Your task to perform on an android device: open app "Upside-Cash back on gas & food" (install if not already installed), go to login, and select forgot password Image 0: 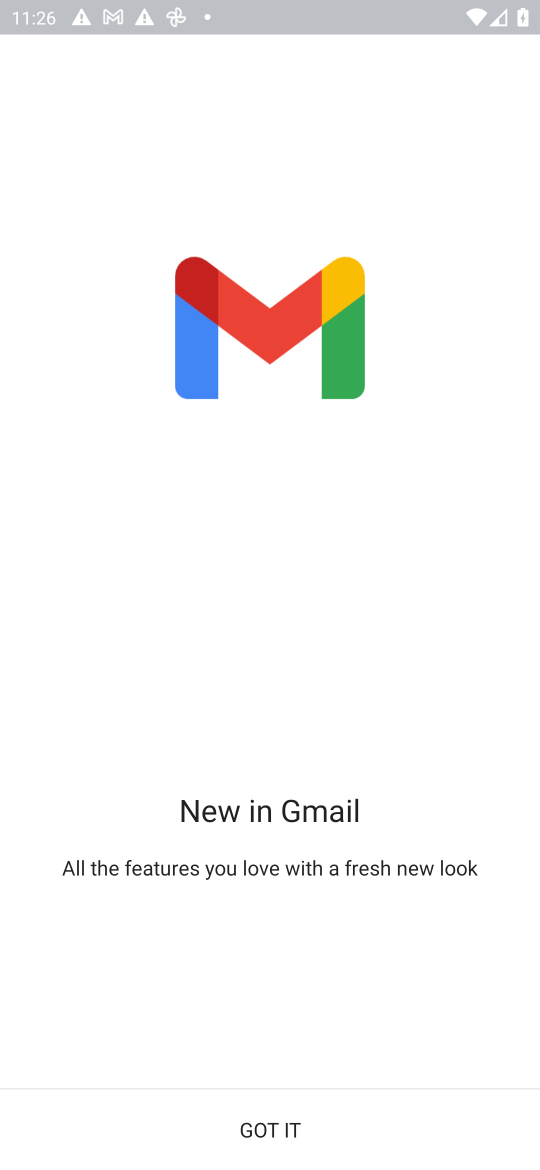
Step 0: press home button
Your task to perform on an android device: open app "Upside-Cash back on gas & food" (install if not already installed), go to login, and select forgot password Image 1: 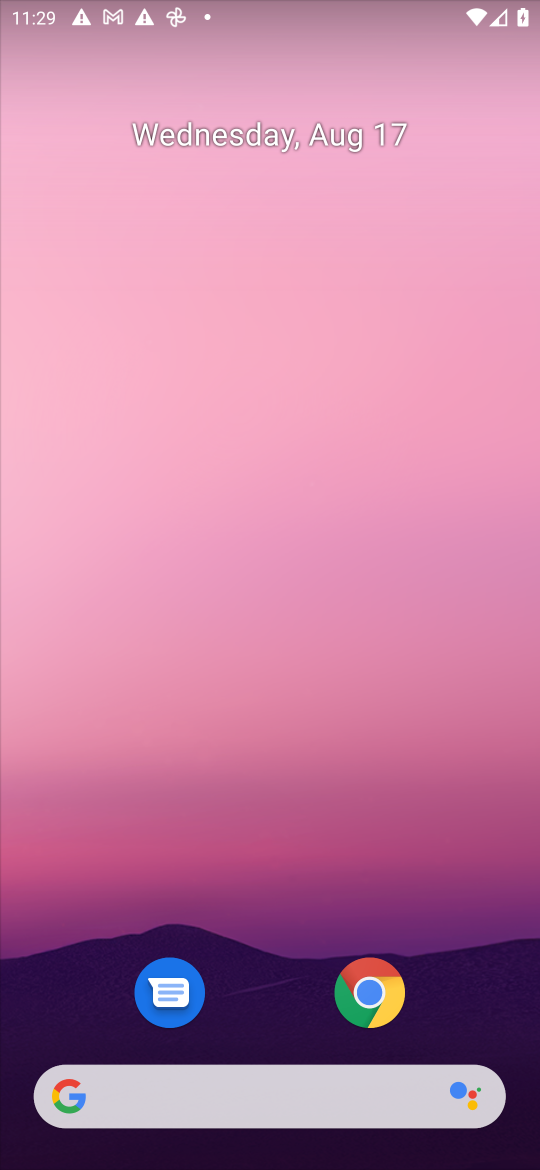
Step 1: drag from (487, 984) to (213, 0)
Your task to perform on an android device: open app "Upside-Cash back on gas & food" (install if not already installed), go to login, and select forgot password Image 2: 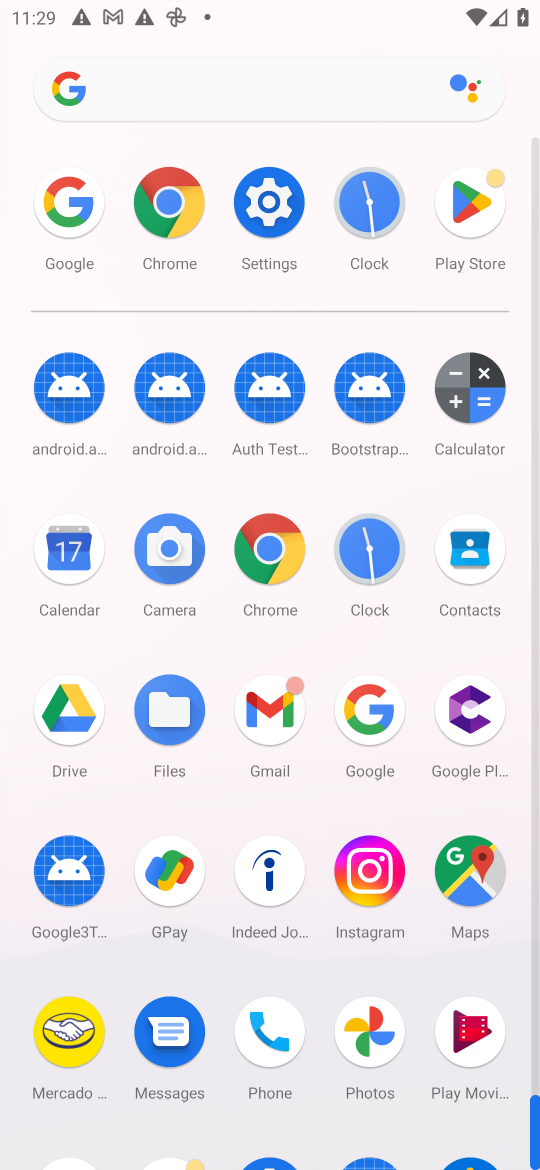
Step 2: click (473, 195)
Your task to perform on an android device: open app "Upside-Cash back on gas & food" (install if not already installed), go to login, and select forgot password Image 3: 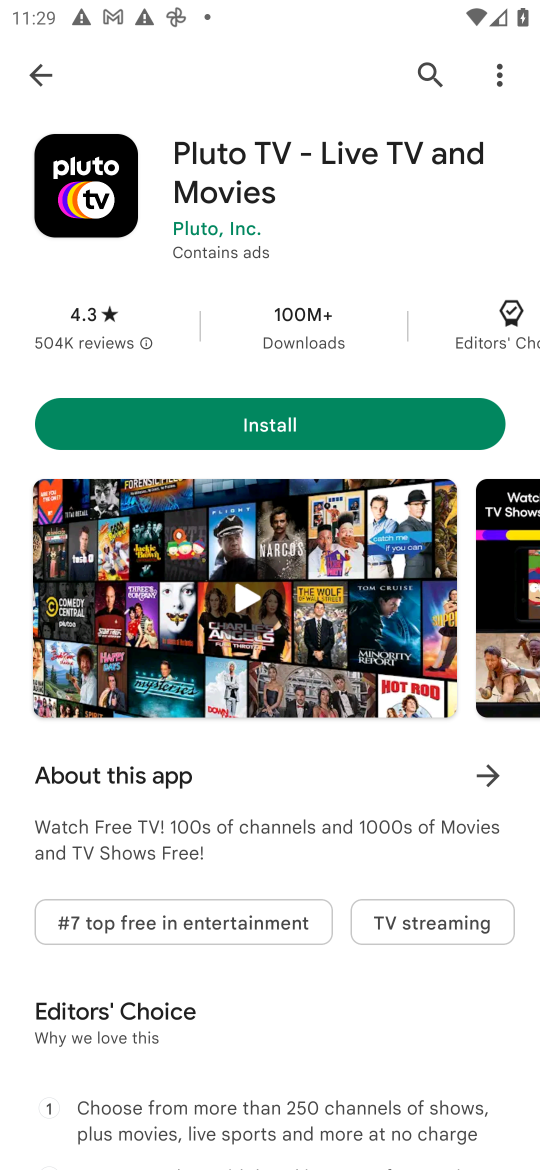
Step 3: press back button
Your task to perform on an android device: open app "Upside-Cash back on gas & food" (install if not already installed), go to login, and select forgot password Image 4: 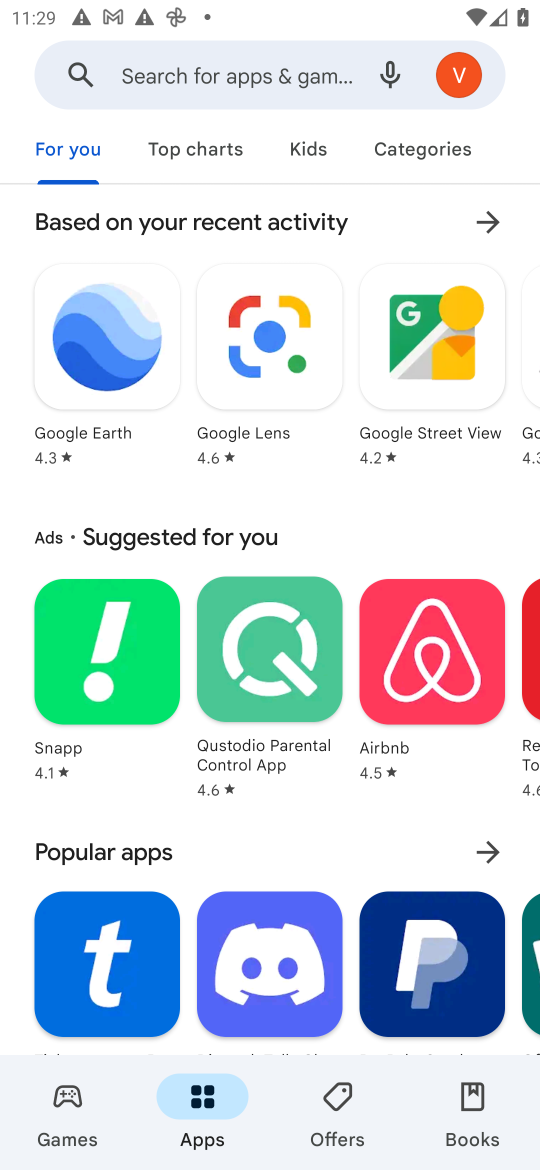
Step 4: click (250, 68)
Your task to perform on an android device: open app "Upside-Cash back on gas & food" (install if not already installed), go to login, and select forgot password Image 5: 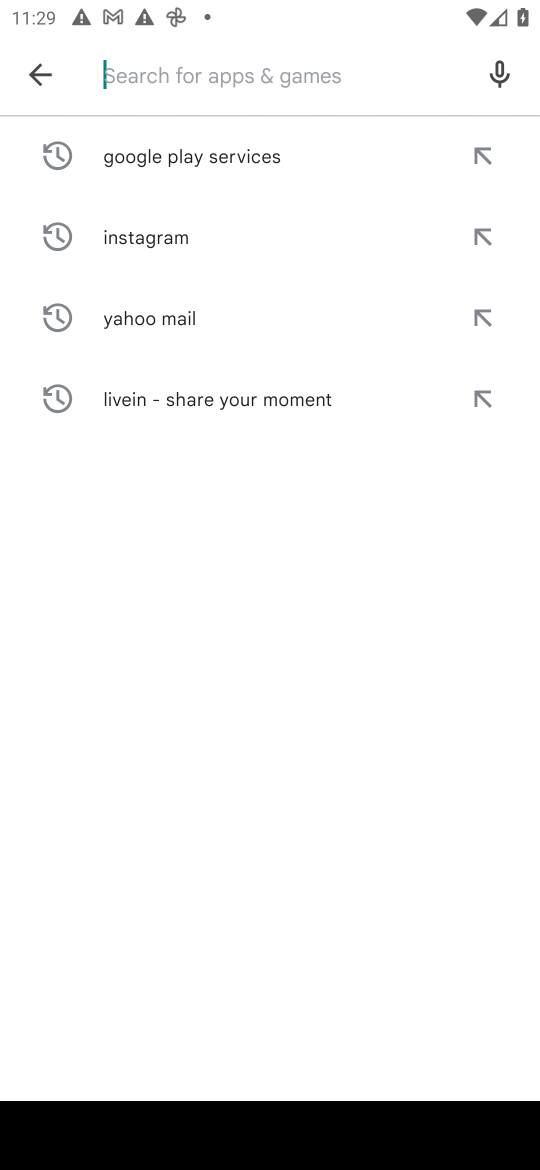
Step 5: type "Upside-Cash back on gas & food"
Your task to perform on an android device: open app "Upside-Cash back on gas & food" (install if not already installed), go to login, and select forgot password Image 6: 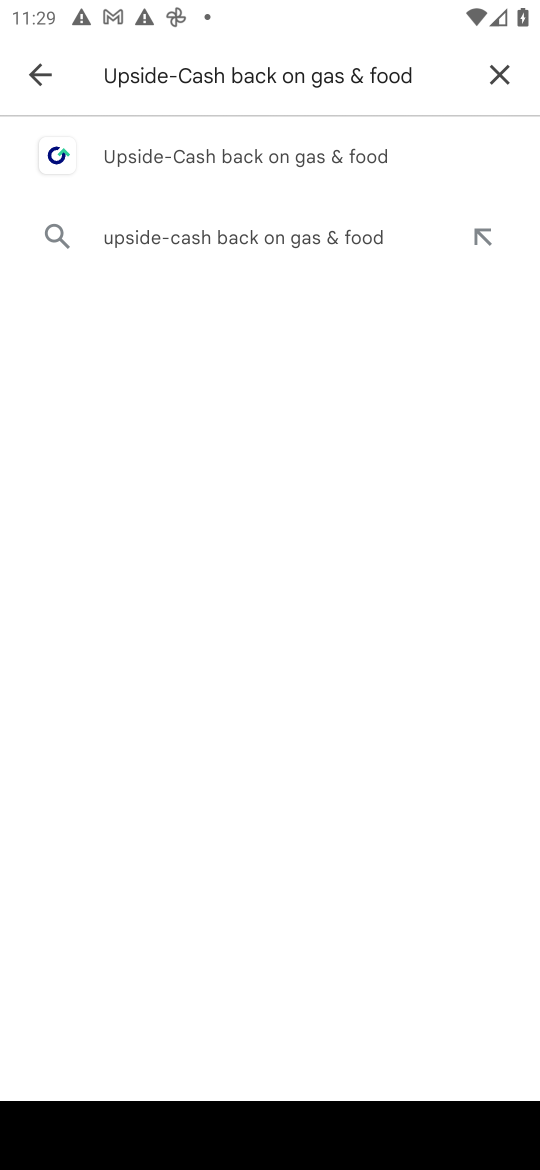
Step 6: click (284, 146)
Your task to perform on an android device: open app "Upside-Cash back on gas & food" (install if not already installed), go to login, and select forgot password Image 7: 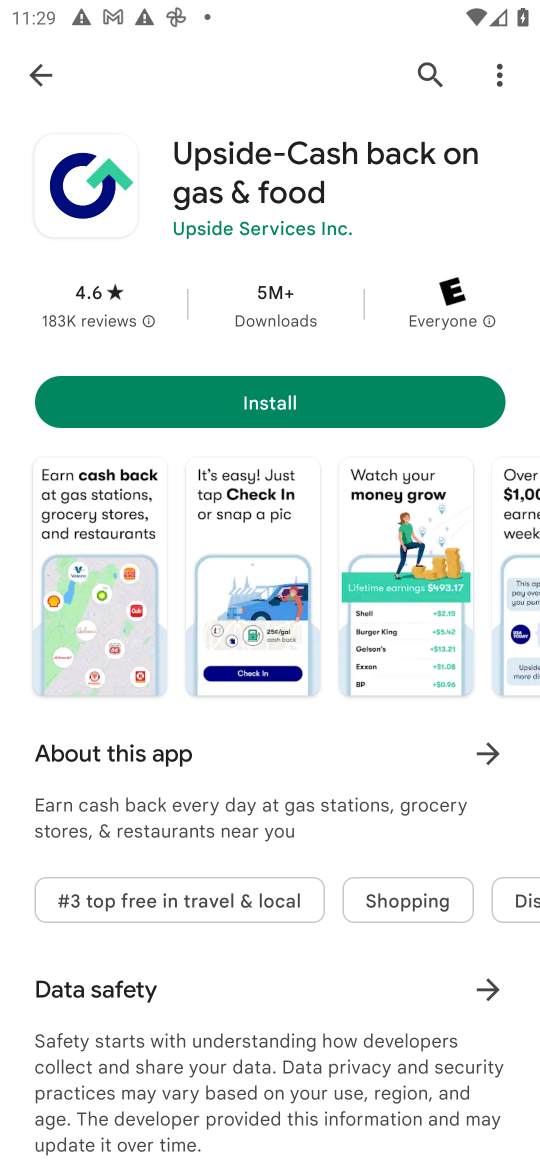
Step 7: task complete